Your task to perform on an android device: Go to Google Image 0: 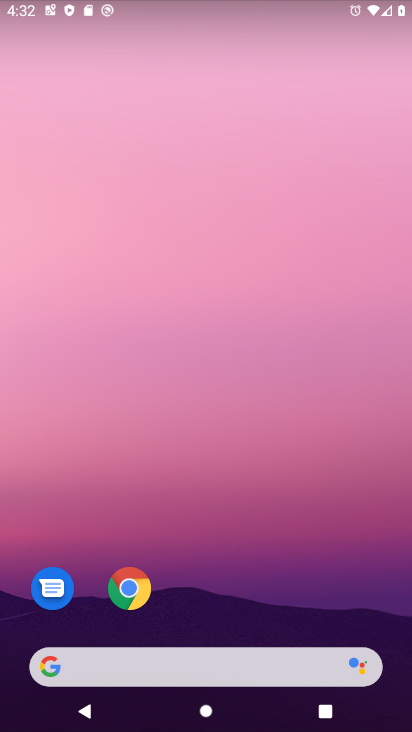
Step 0: drag from (238, 602) to (164, 211)
Your task to perform on an android device: Go to Google Image 1: 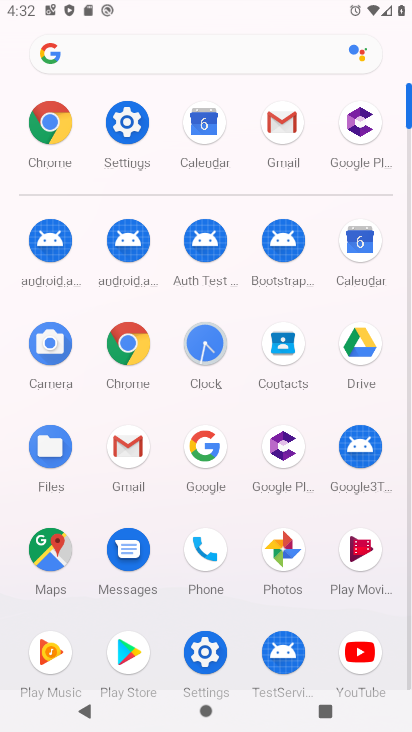
Step 1: click (210, 441)
Your task to perform on an android device: Go to Google Image 2: 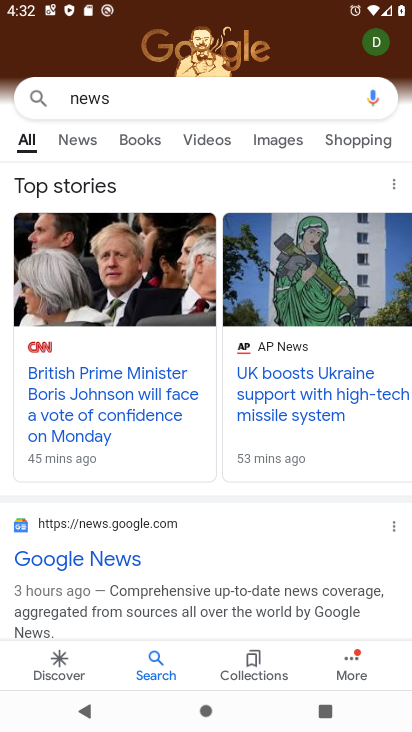
Step 2: task complete